Your task to perform on an android device: Is it going to rain tomorrow? Image 0: 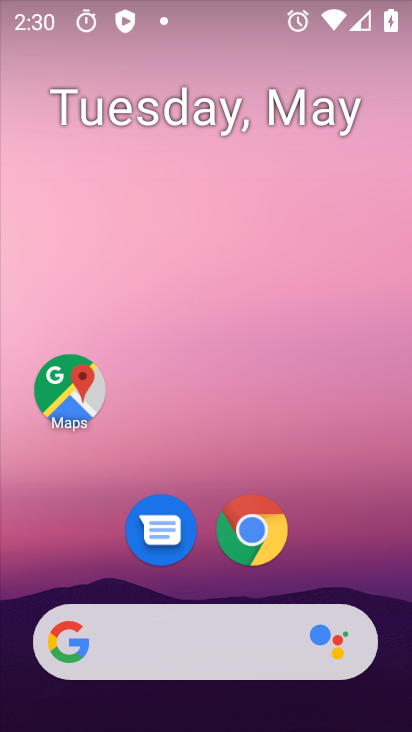
Step 0: drag from (223, 572) to (190, 22)
Your task to perform on an android device: Is it going to rain tomorrow? Image 1: 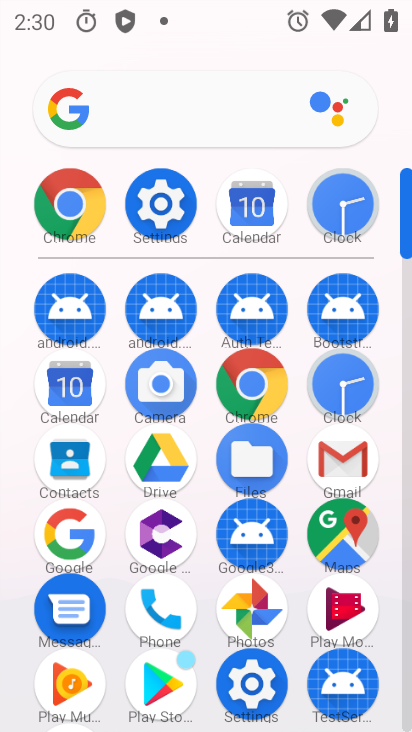
Step 1: click (64, 541)
Your task to perform on an android device: Is it going to rain tomorrow? Image 2: 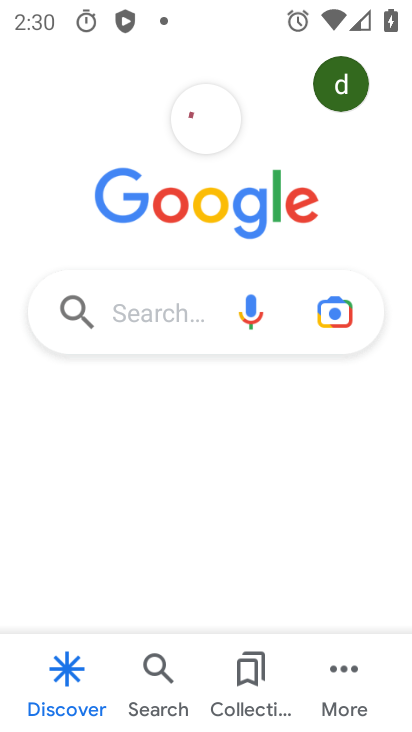
Step 2: click (127, 328)
Your task to perform on an android device: Is it going to rain tomorrow? Image 3: 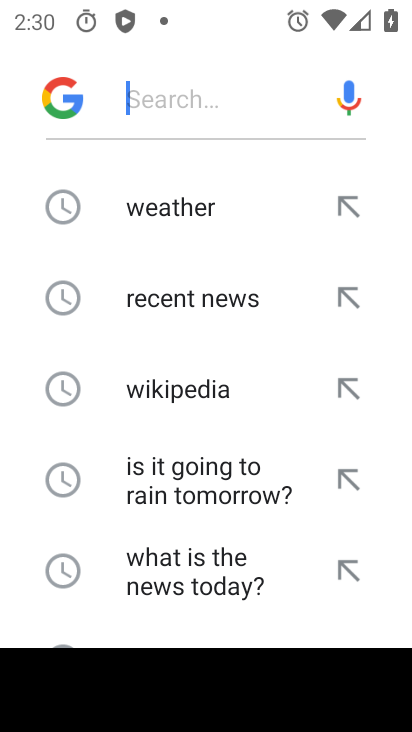
Step 3: click (171, 215)
Your task to perform on an android device: Is it going to rain tomorrow? Image 4: 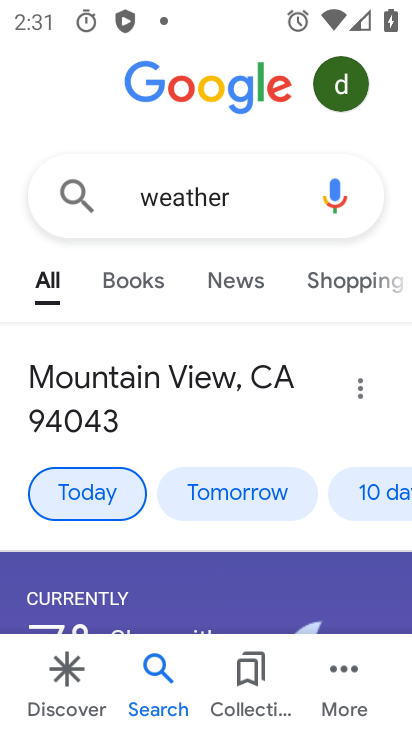
Step 4: click (247, 516)
Your task to perform on an android device: Is it going to rain tomorrow? Image 5: 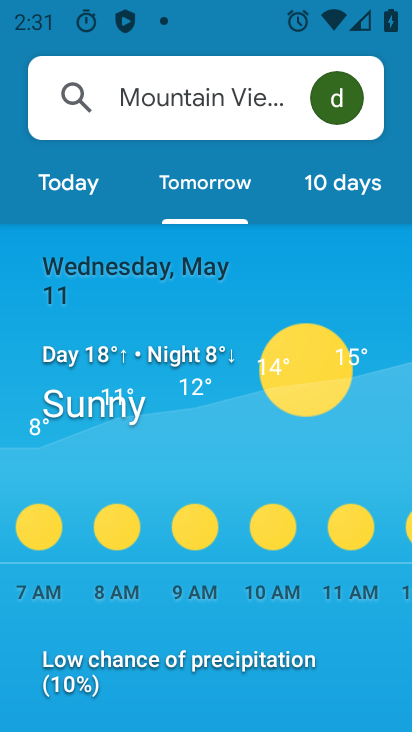
Step 5: task complete